Your task to perform on an android device: See recent photos Image 0: 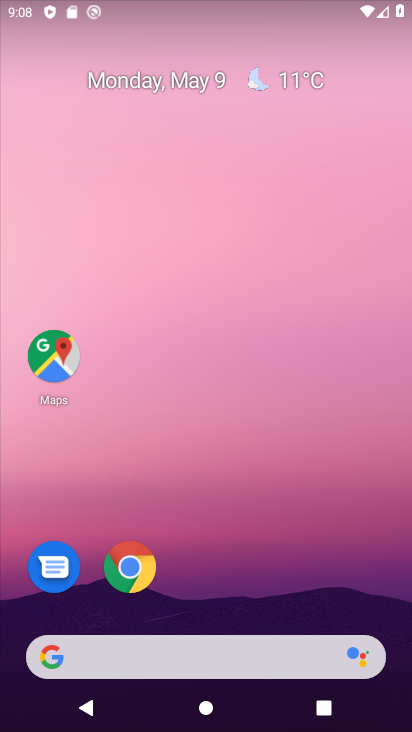
Step 0: drag from (271, 543) to (289, 36)
Your task to perform on an android device: See recent photos Image 1: 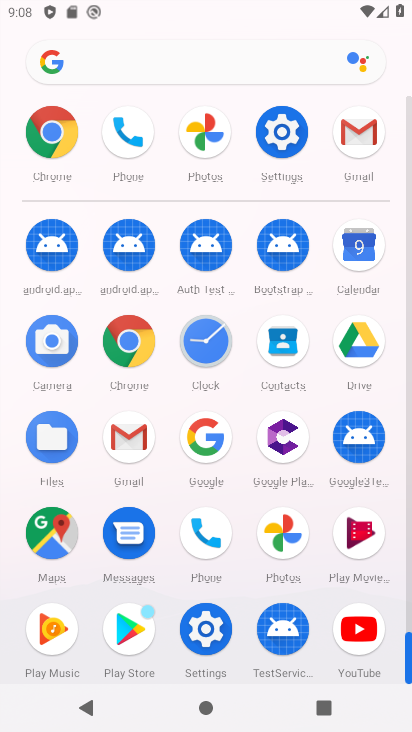
Step 1: click (211, 125)
Your task to perform on an android device: See recent photos Image 2: 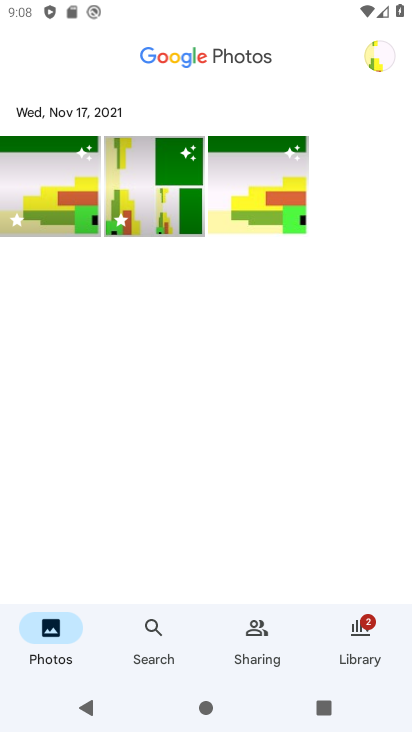
Step 2: click (151, 630)
Your task to perform on an android device: See recent photos Image 3: 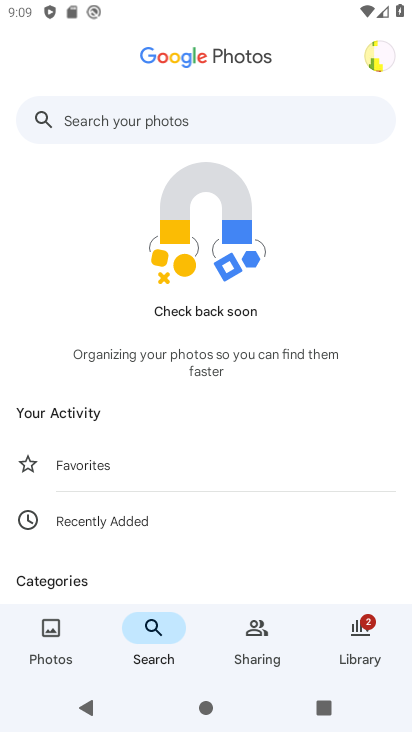
Step 3: click (139, 514)
Your task to perform on an android device: See recent photos Image 4: 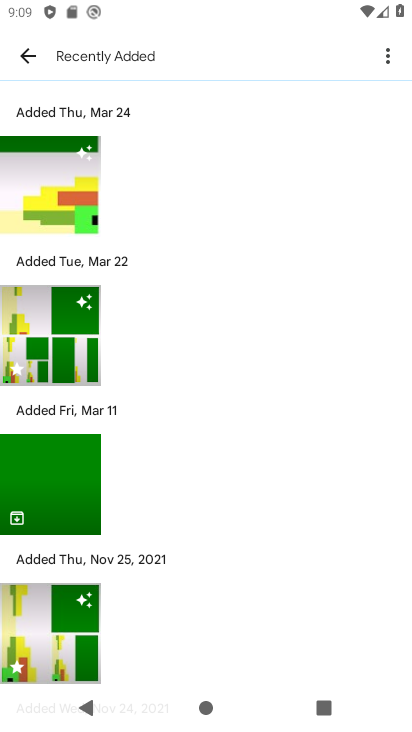
Step 4: task complete